Your task to perform on an android device: Open Google Image 0: 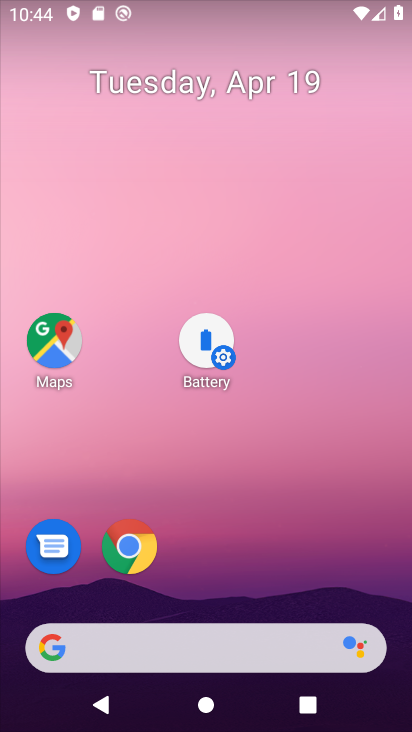
Step 0: drag from (263, 478) to (306, 37)
Your task to perform on an android device: Open Google Image 1: 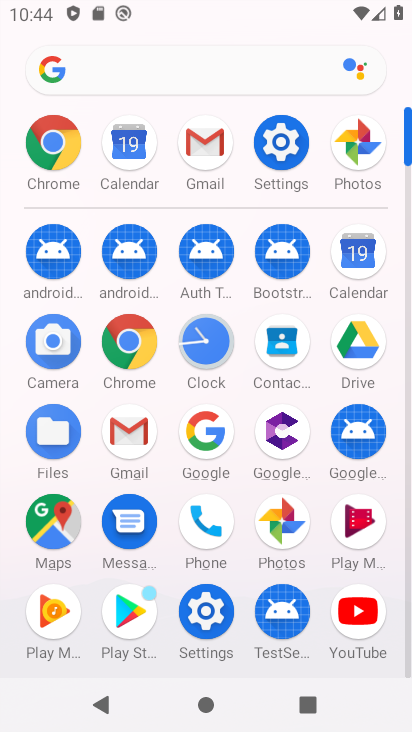
Step 1: click (201, 424)
Your task to perform on an android device: Open Google Image 2: 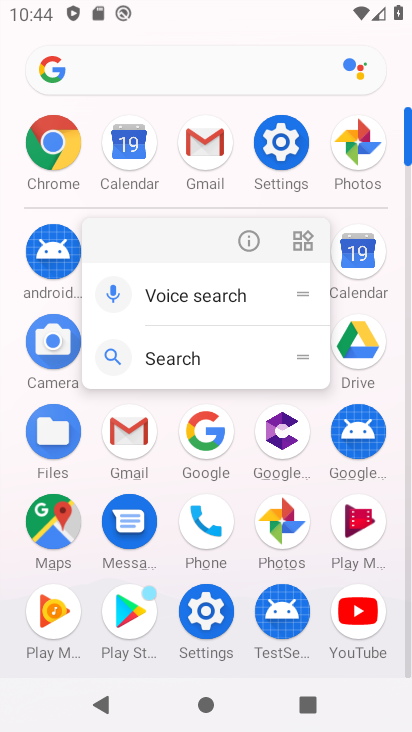
Step 2: click (207, 423)
Your task to perform on an android device: Open Google Image 3: 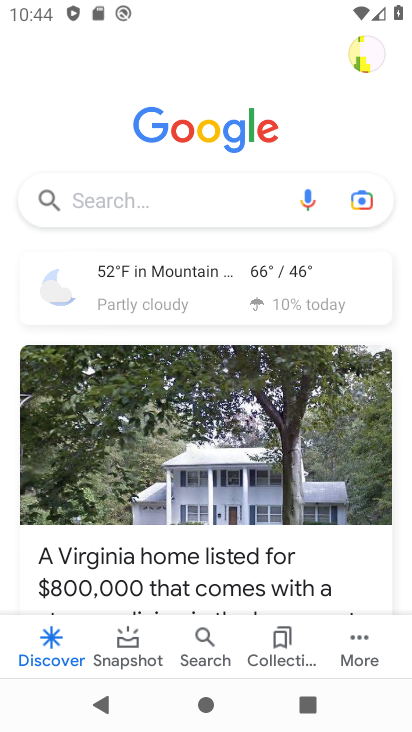
Step 3: task complete